Your task to perform on an android device: set the stopwatch Image 0: 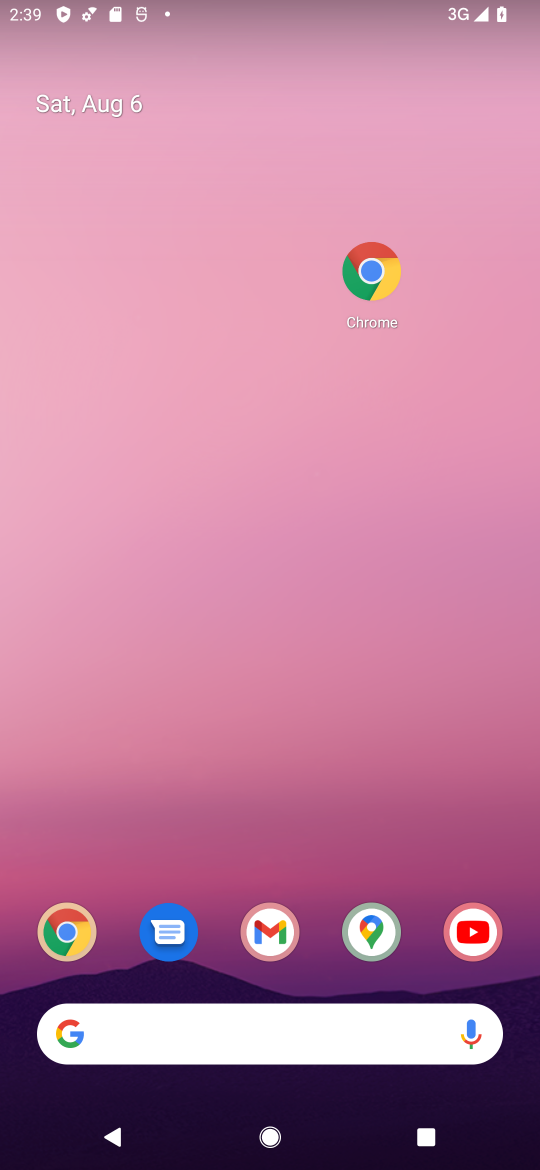
Step 0: drag from (341, 772) to (456, 30)
Your task to perform on an android device: set the stopwatch Image 1: 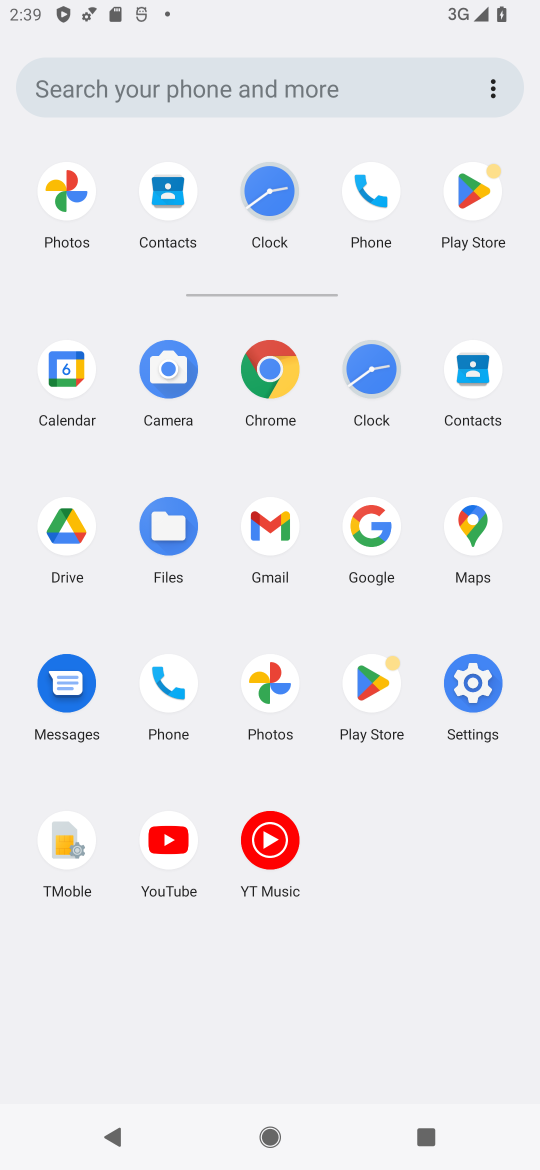
Step 1: click (383, 352)
Your task to perform on an android device: set the stopwatch Image 2: 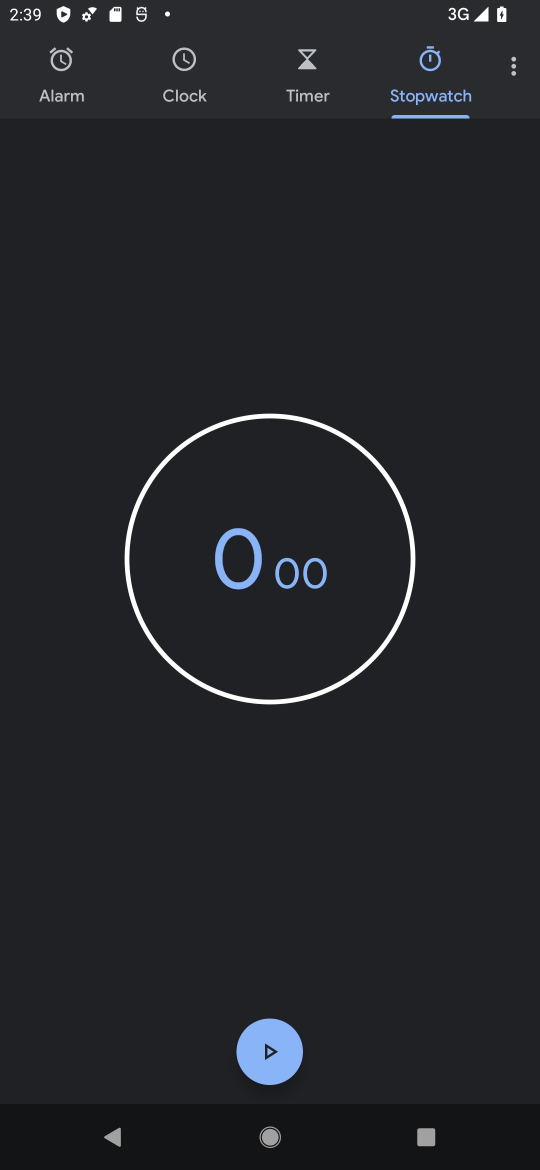
Step 2: click (260, 1054)
Your task to perform on an android device: set the stopwatch Image 3: 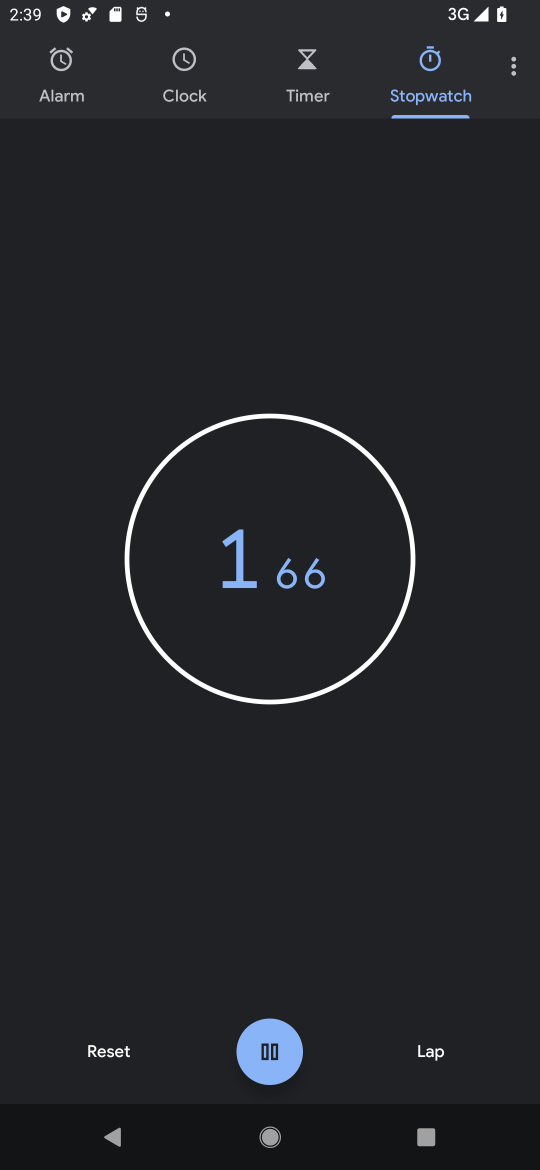
Step 3: task complete